Your task to perform on an android device: turn pop-ups on in chrome Image 0: 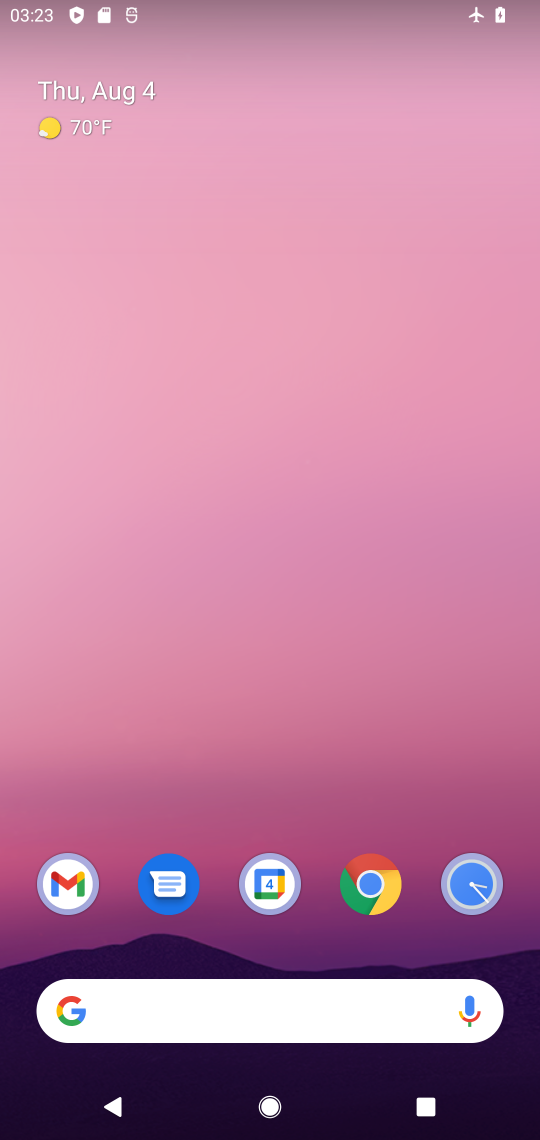
Step 0: press home button
Your task to perform on an android device: turn pop-ups on in chrome Image 1: 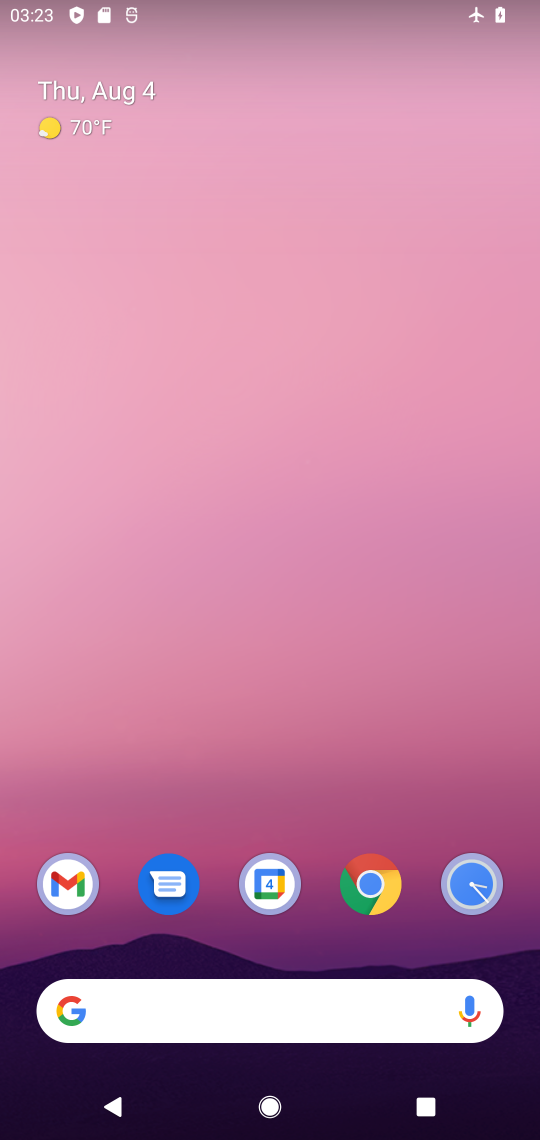
Step 1: drag from (310, 866) to (375, 301)
Your task to perform on an android device: turn pop-ups on in chrome Image 2: 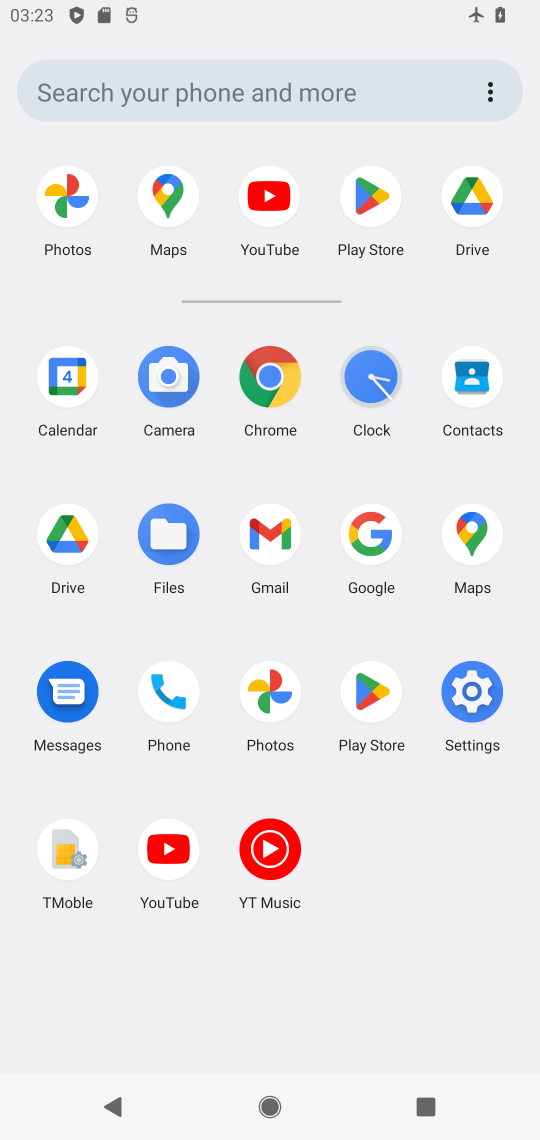
Step 2: click (263, 382)
Your task to perform on an android device: turn pop-ups on in chrome Image 3: 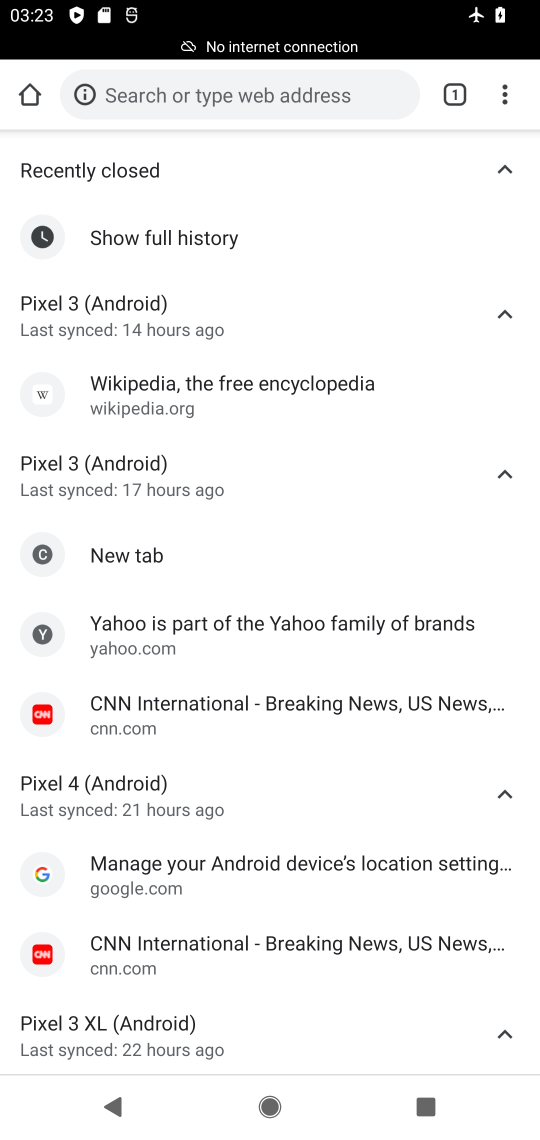
Step 3: click (504, 97)
Your task to perform on an android device: turn pop-ups on in chrome Image 4: 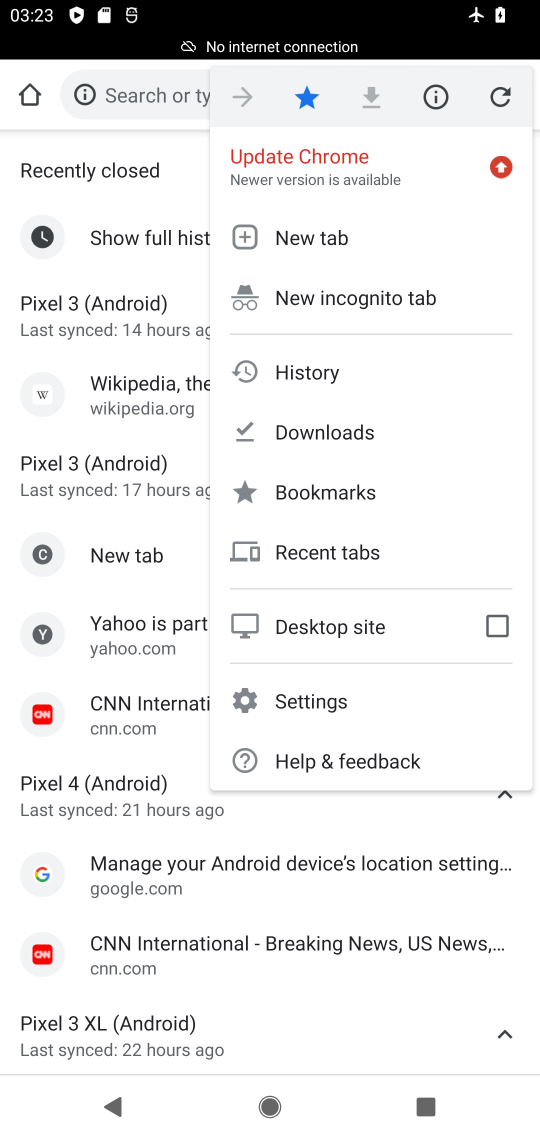
Step 4: click (336, 710)
Your task to perform on an android device: turn pop-ups on in chrome Image 5: 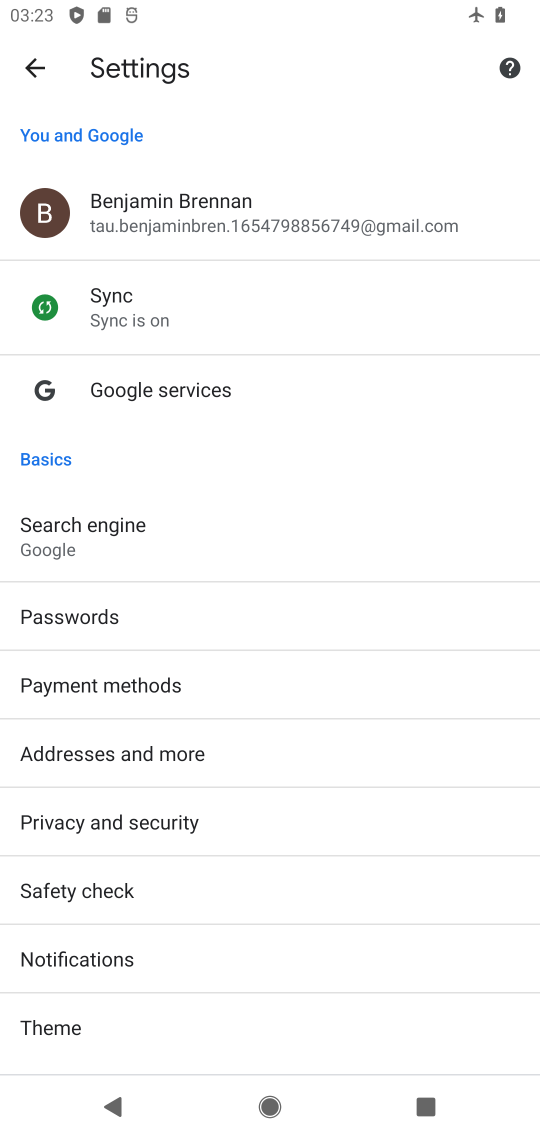
Step 5: drag from (325, 863) to (337, 723)
Your task to perform on an android device: turn pop-ups on in chrome Image 6: 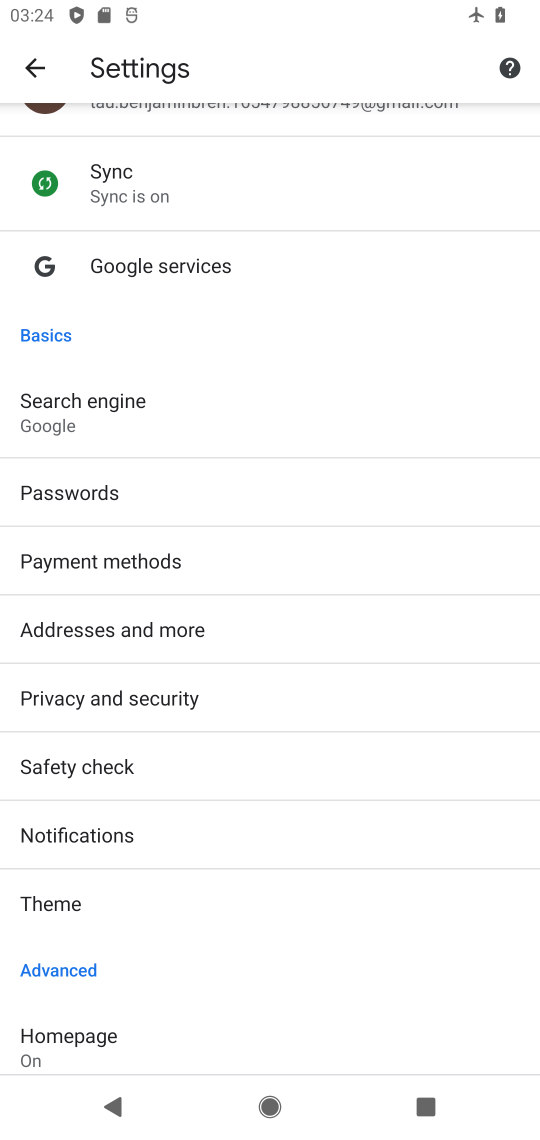
Step 6: drag from (355, 895) to (374, 742)
Your task to perform on an android device: turn pop-ups on in chrome Image 7: 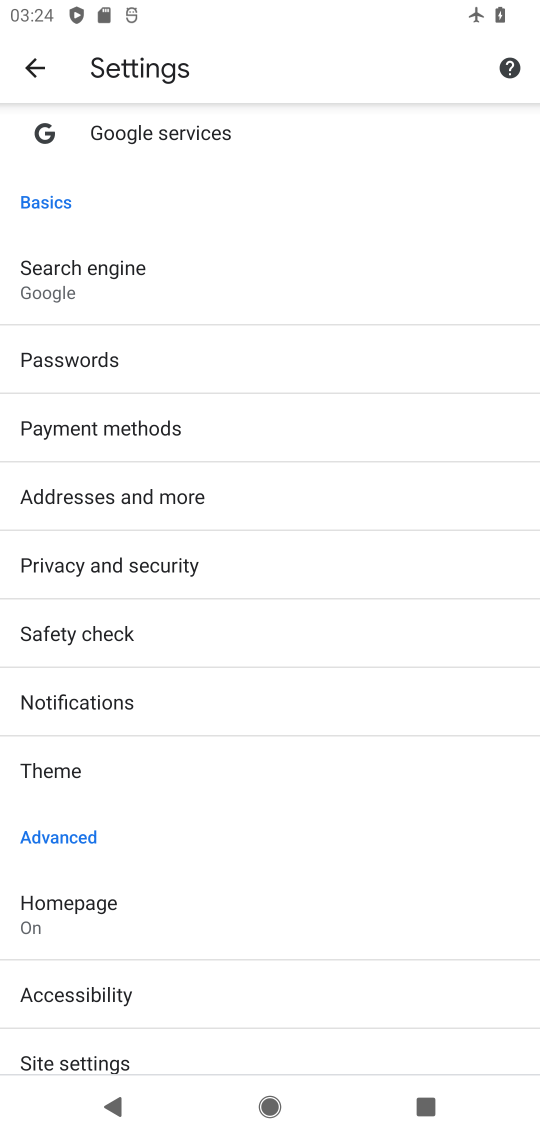
Step 7: drag from (372, 941) to (382, 727)
Your task to perform on an android device: turn pop-ups on in chrome Image 8: 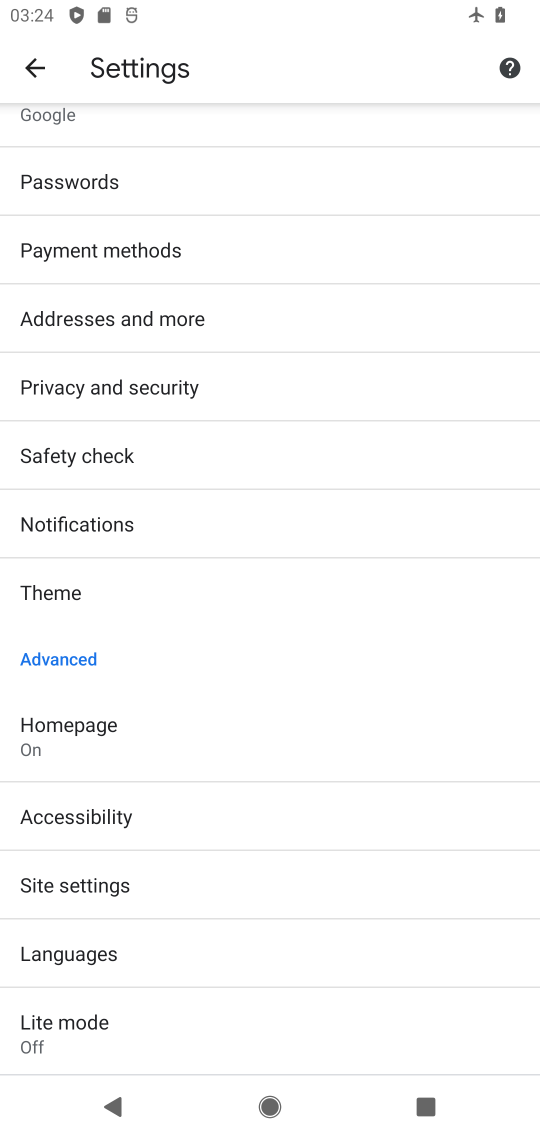
Step 8: drag from (404, 959) to (422, 653)
Your task to perform on an android device: turn pop-ups on in chrome Image 9: 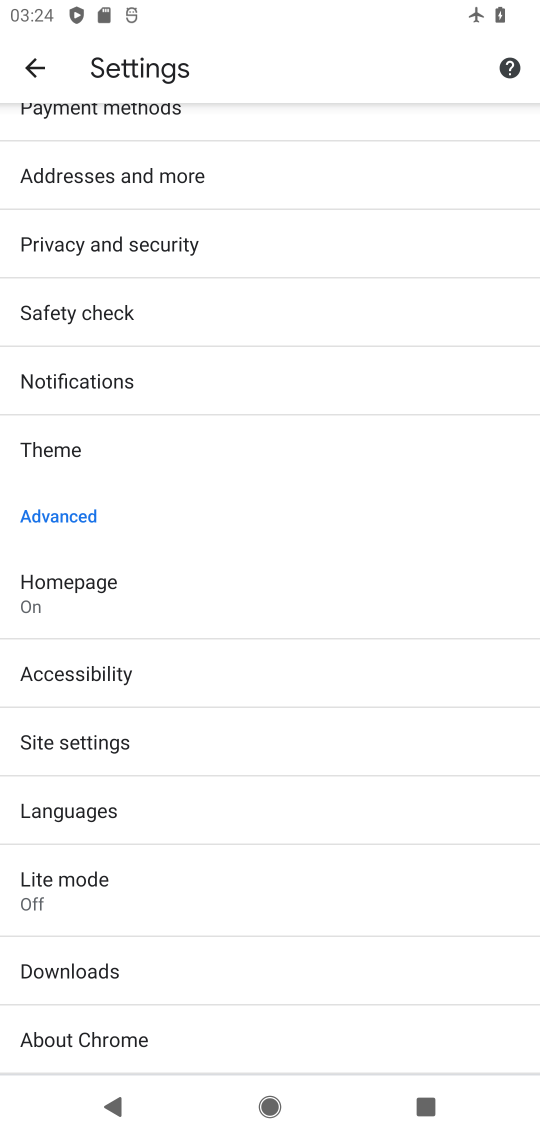
Step 9: click (421, 738)
Your task to perform on an android device: turn pop-ups on in chrome Image 10: 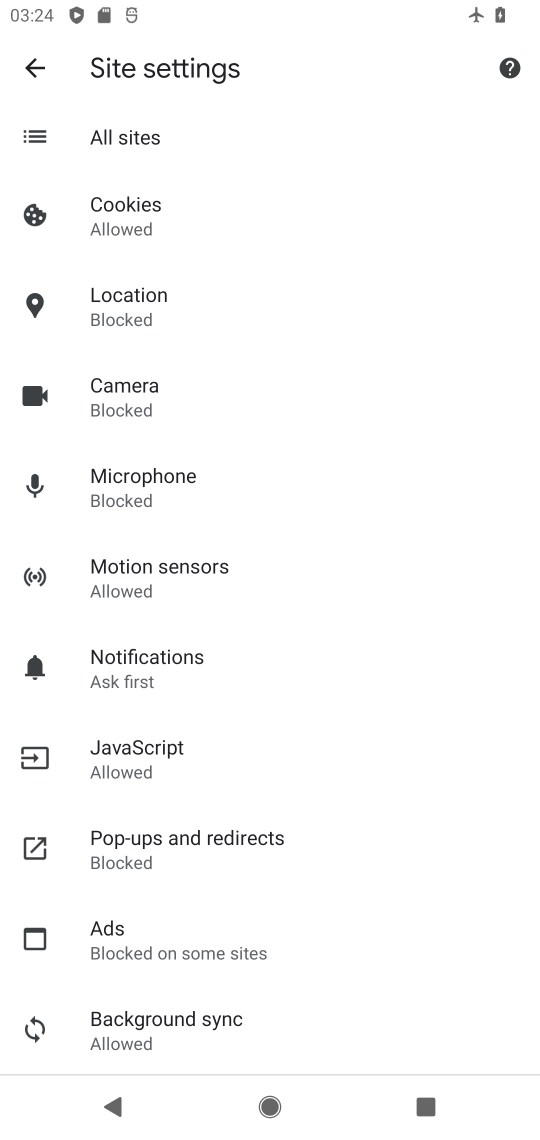
Step 10: drag from (434, 875) to (434, 707)
Your task to perform on an android device: turn pop-ups on in chrome Image 11: 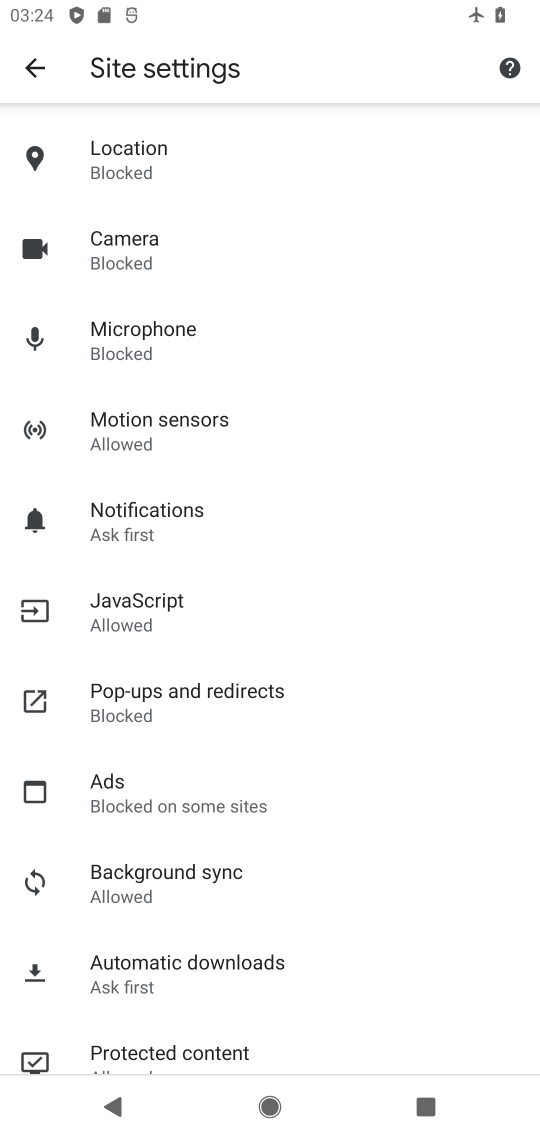
Step 11: drag from (432, 926) to (447, 732)
Your task to perform on an android device: turn pop-ups on in chrome Image 12: 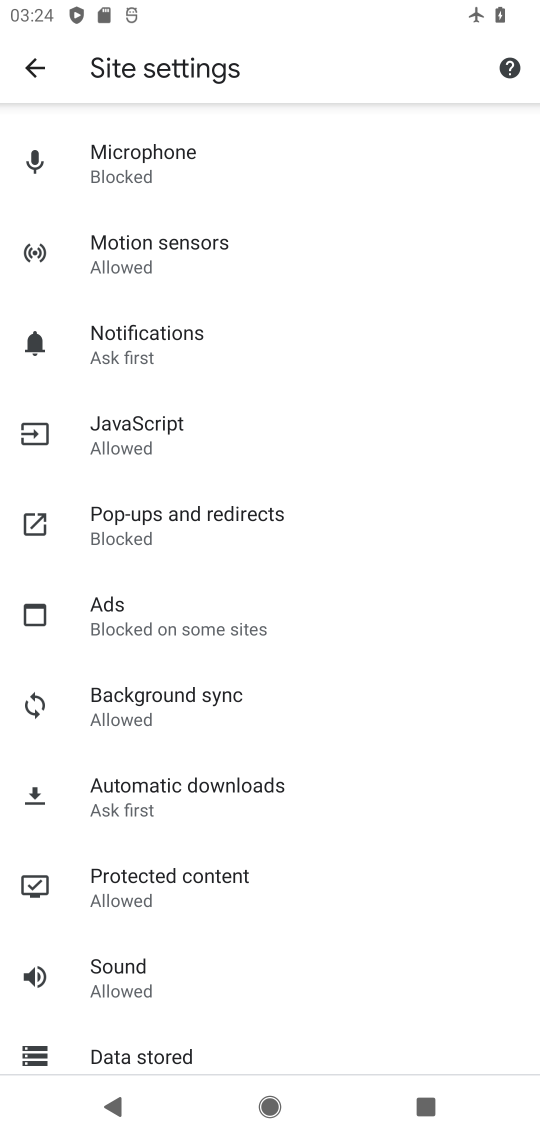
Step 12: click (325, 537)
Your task to perform on an android device: turn pop-ups on in chrome Image 13: 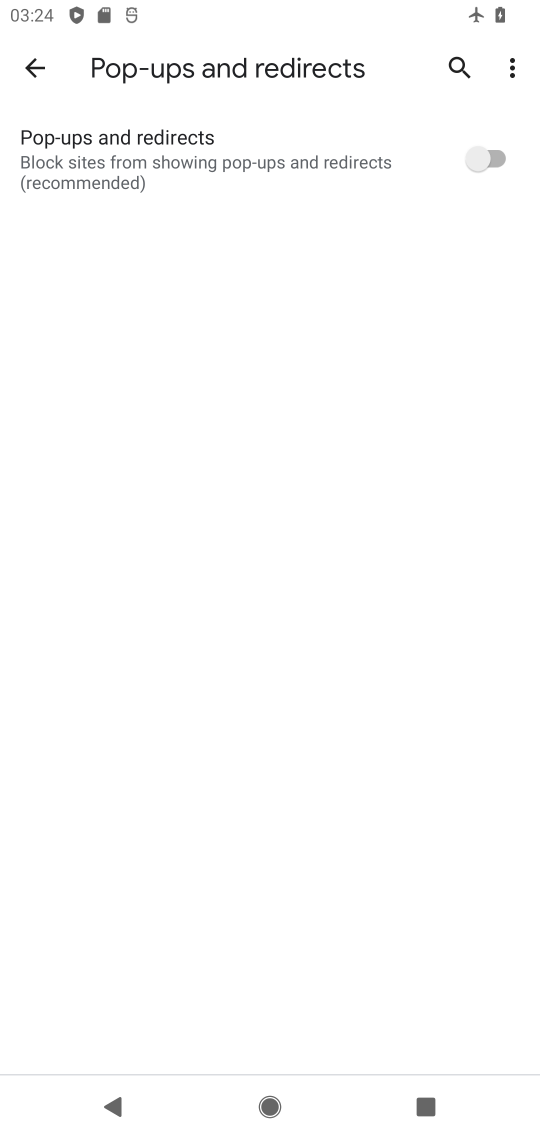
Step 13: click (482, 158)
Your task to perform on an android device: turn pop-ups on in chrome Image 14: 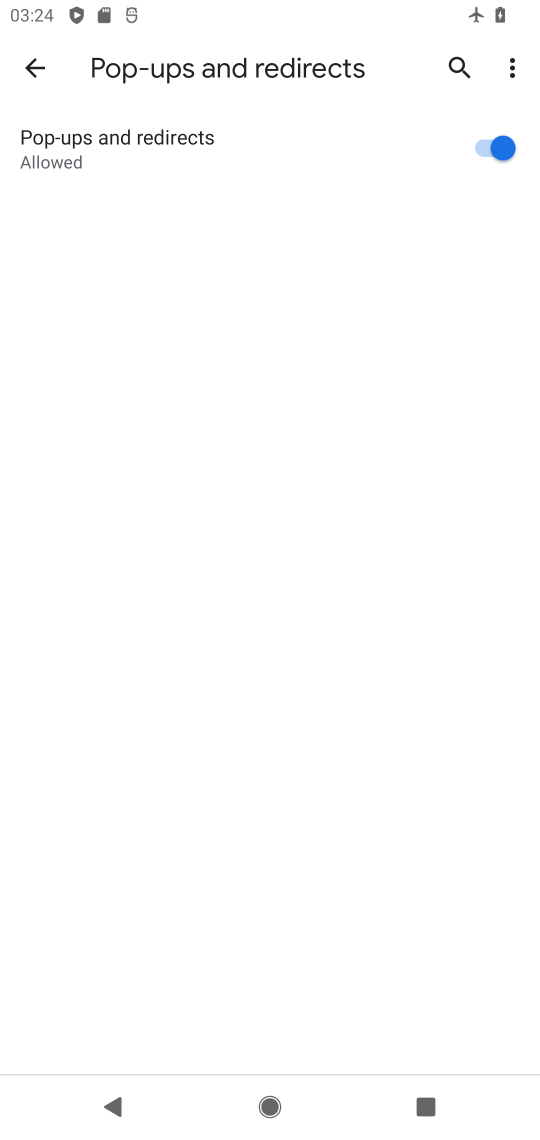
Step 14: task complete